Your task to perform on an android device: Go to Yahoo.com Image 0: 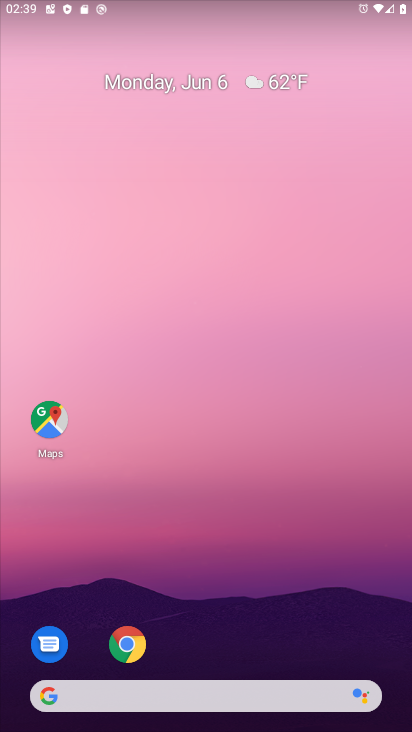
Step 0: click (127, 658)
Your task to perform on an android device: Go to Yahoo.com Image 1: 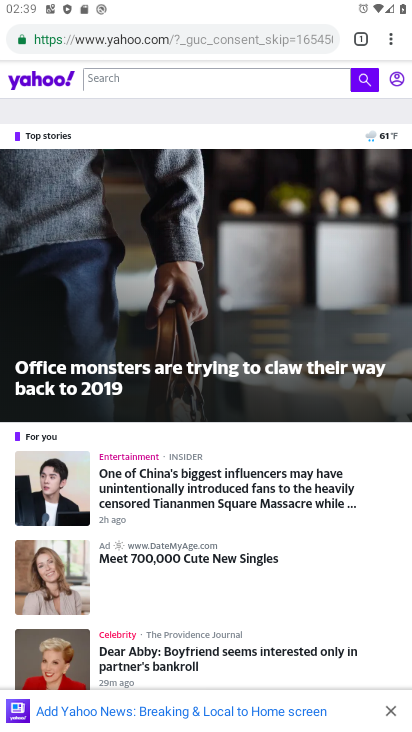
Step 1: task complete